Your task to perform on an android device: What's the weather going to be tomorrow? Image 0: 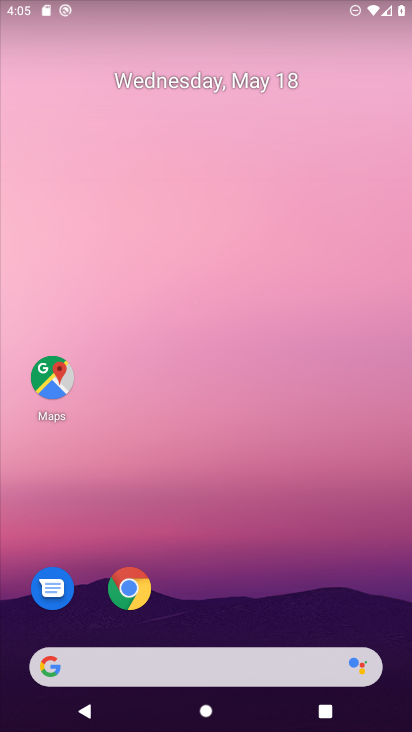
Step 0: click (273, 663)
Your task to perform on an android device: What's the weather going to be tomorrow? Image 1: 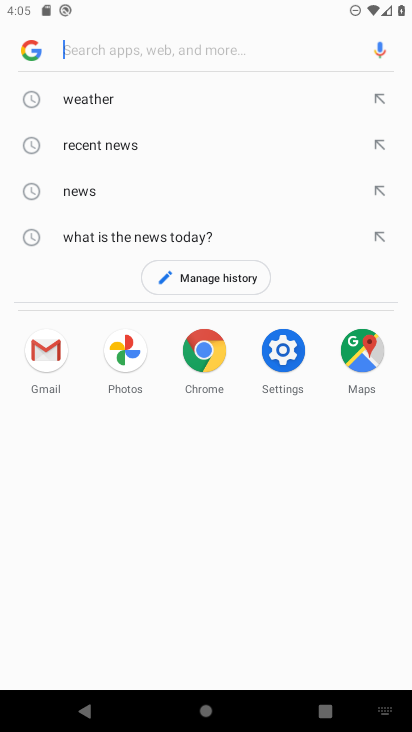
Step 1: click (112, 104)
Your task to perform on an android device: What's the weather going to be tomorrow? Image 2: 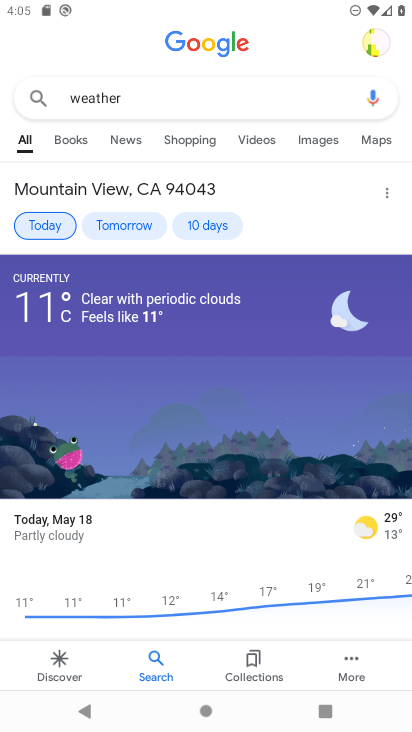
Step 2: click (135, 220)
Your task to perform on an android device: What's the weather going to be tomorrow? Image 3: 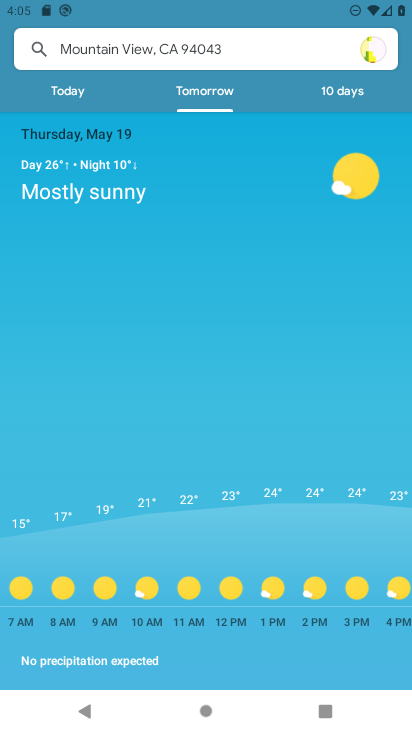
Step 3: task complete